Your task to perform on an android device: When is my next meeting? Image 0: 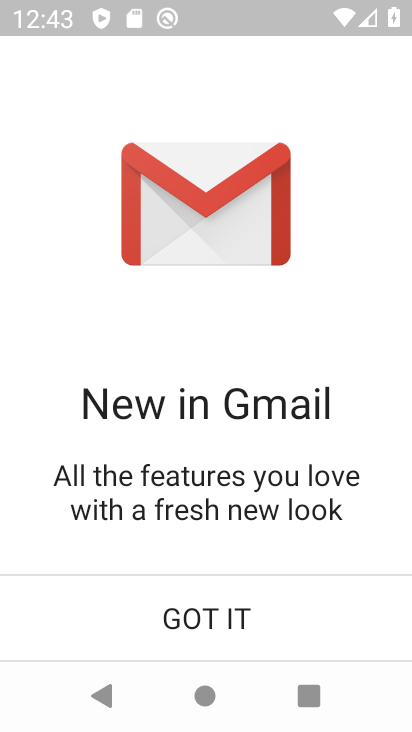
Step 0: press home button
Your task to perform on an android device: When is my next meeting? Image 1: 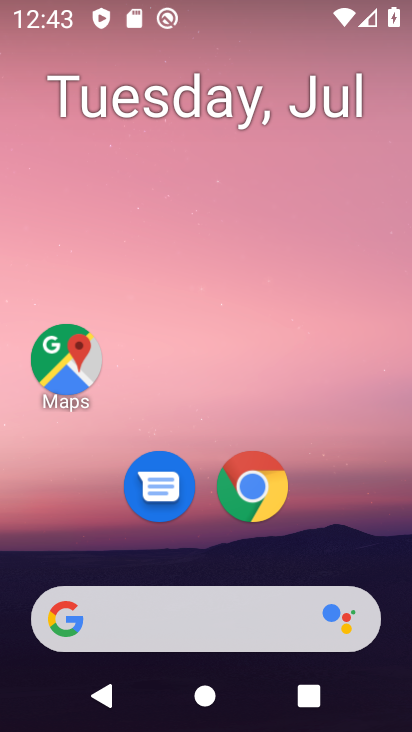
Step 1: drag from (348, 541) to (410, 322)
Your task to perform on an android device: When is my next meeting? Image 2: 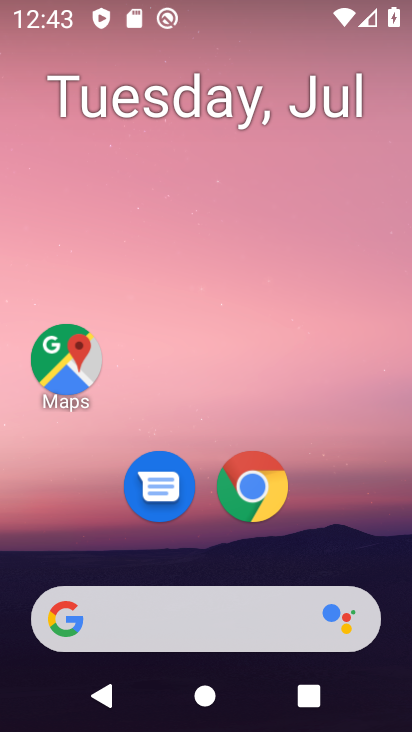
Step 2: drag from (319, 565) to (350, 147)
Your task to perform on an android device: When is my next meeting? Image 3: 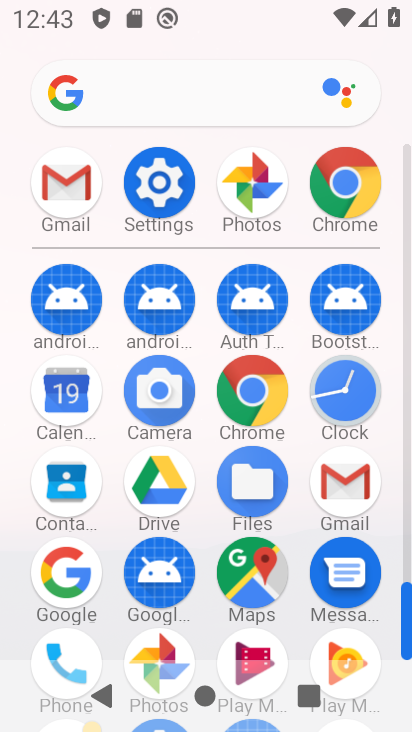
Step 3: click (71, 395)
Your task to perform on an android device: When is my next meeting? Image 4: 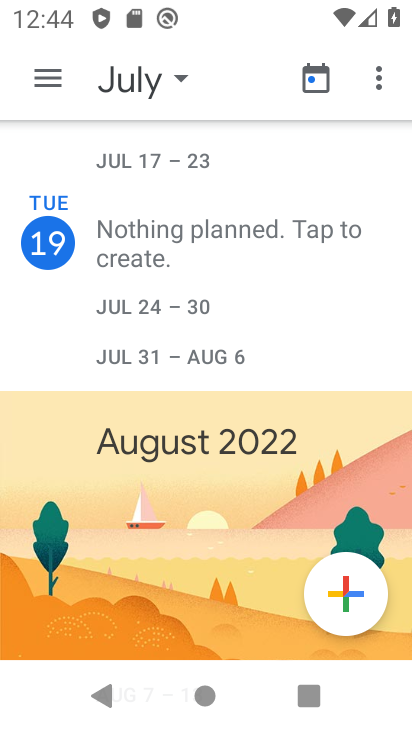
Step 4: task complete